Your task to perform on an android device: Open Google Image 0: 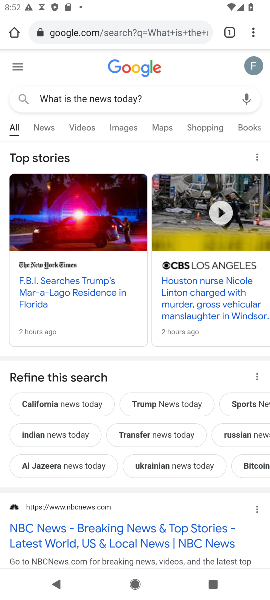
Step 0: press home button
Your task to perform on an android device: Open Google Image 1: 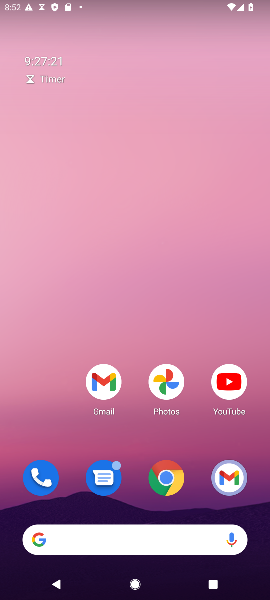
Step 1: drag from (210, 348) to (170, 36)
Your task to perform on an android device: Open Google Image 2: 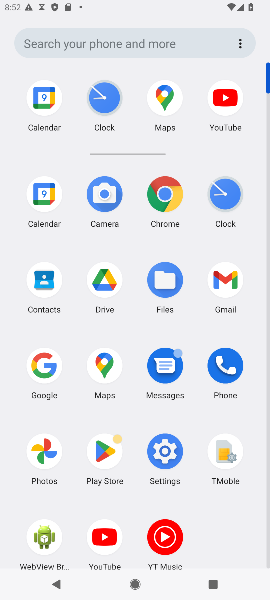
Step 2: click (48, 371)
Your task to perform on an android device: Open Google Image 3: 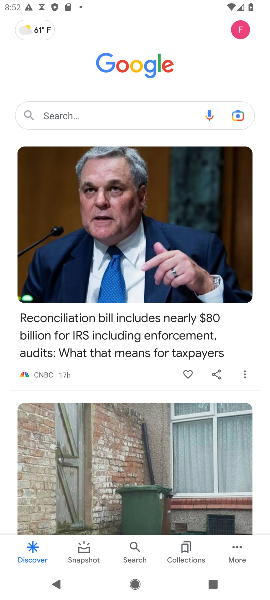
Step 3: task complete